Your task to perform on an android device: Set the phone to "Do not disturb". Image 0: 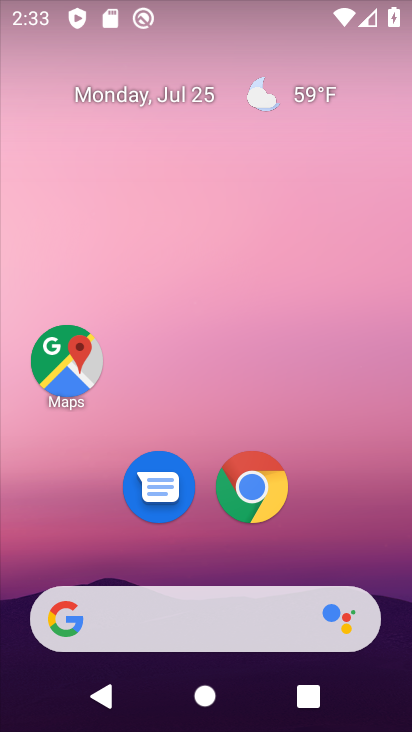
Step 0: drag from (214, 0) to (215, 309)
Your task to perform on an android device: Set the phone to "Do not disturb". Image 1: 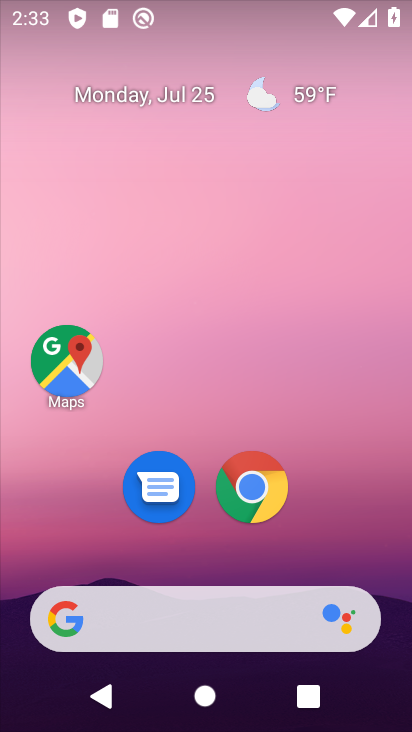
Step 1: drag from (154, 13) to (149, 630)
Your task to perform on an android device: Set the phone to "Do not disturb". Image 2: 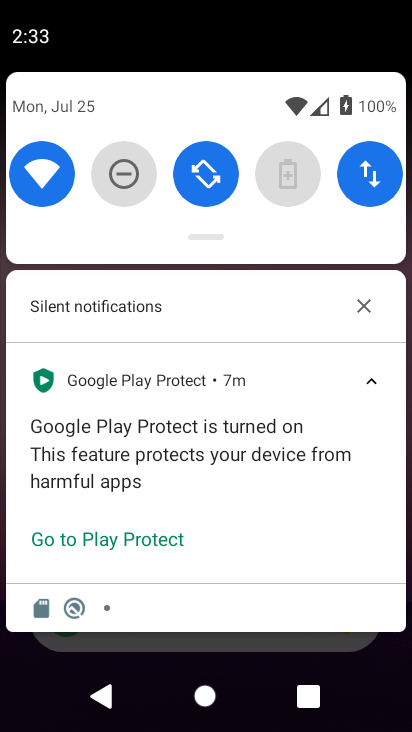
Step 2: click (128, 168)
Your task to perform on an android device: Set the phone to "Do not disturb". Image 3: 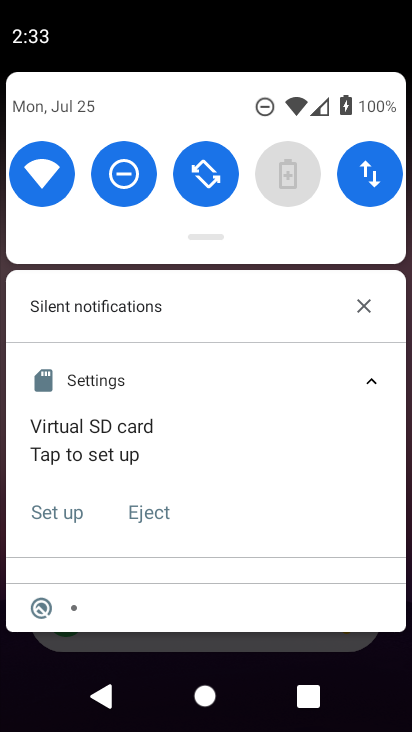
Step 3: task complete